Your task to perform on an android device: Open ESPN.com Image 0: 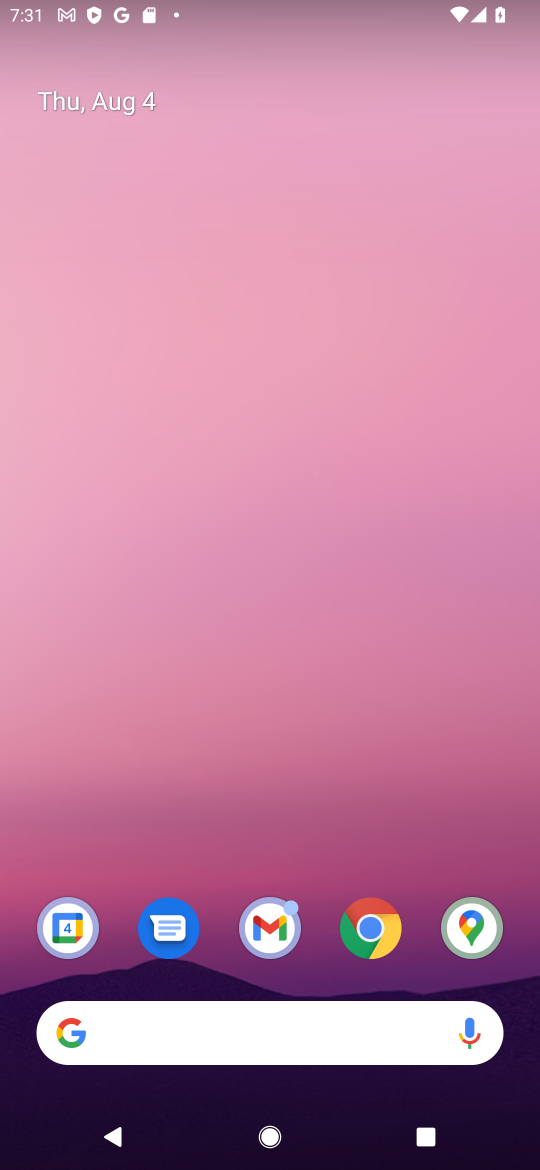
Step 0: drag from (217, 987) to (327, 13)
Your task to perform on an android device: Open ESPN.com Image 1: 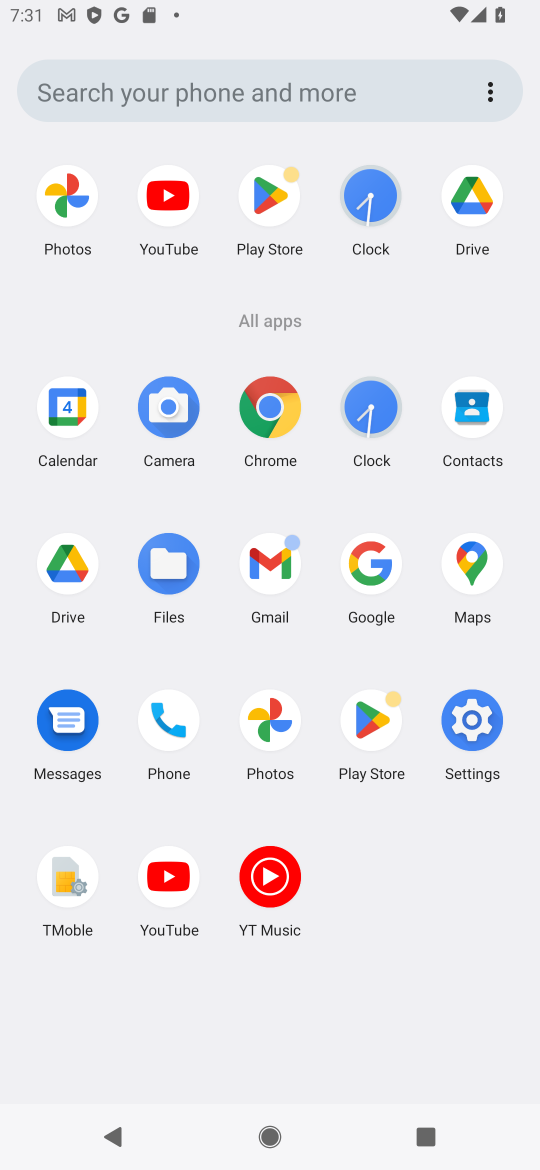
Step 1: click (260, 412)
Your task to perform on an android device: Open ESPN.com Image 2: 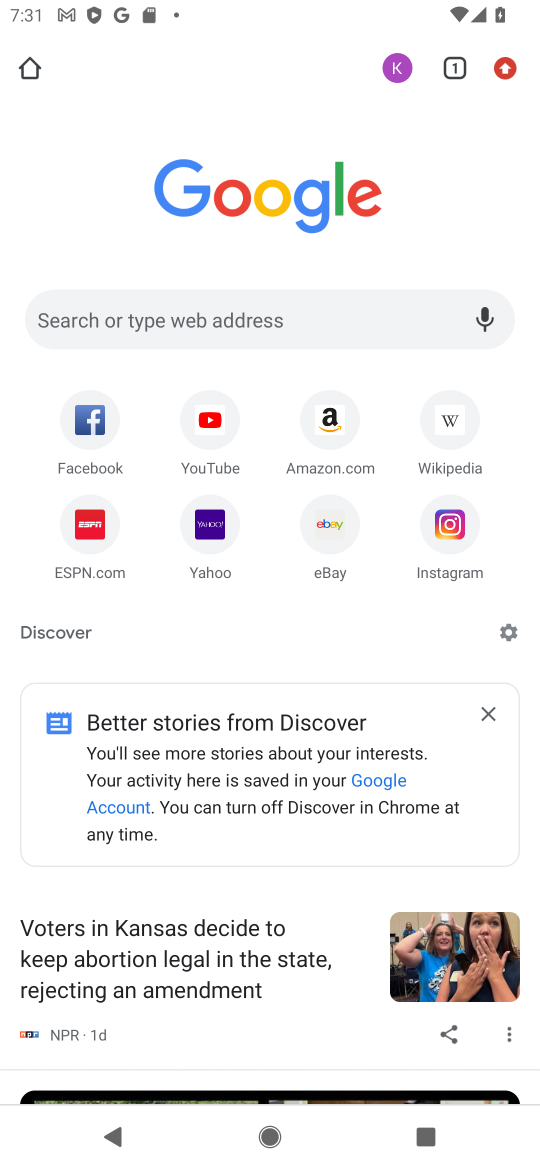
Step 2: click (96, 516)
Your task to perform on an android device: Open ESPN.com Image 3: 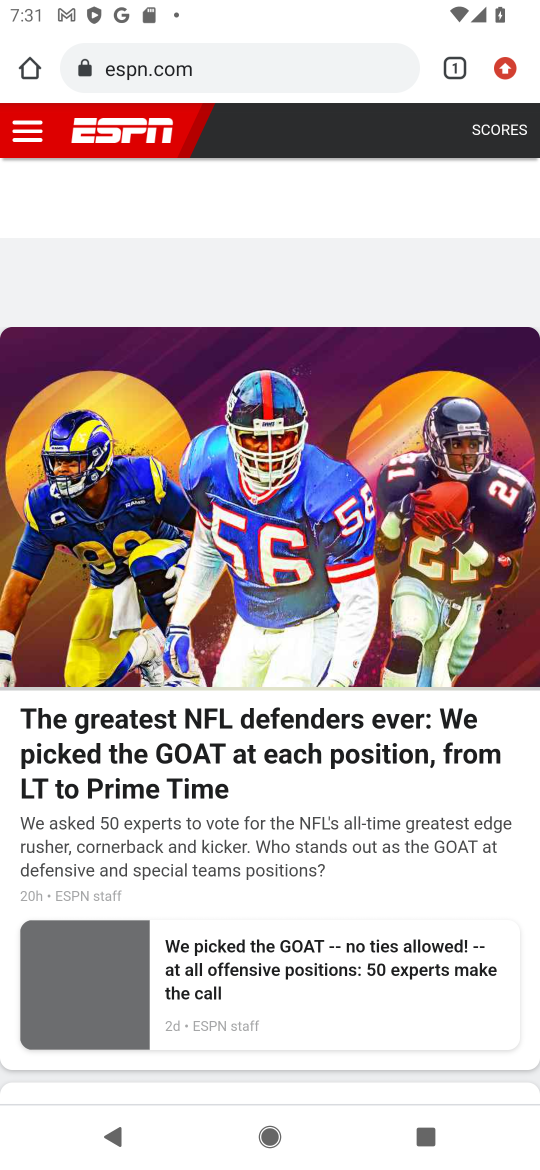
Step 3: task complete